Your task to perform on an android device: Play the last video I watched on Youtube Image 0: 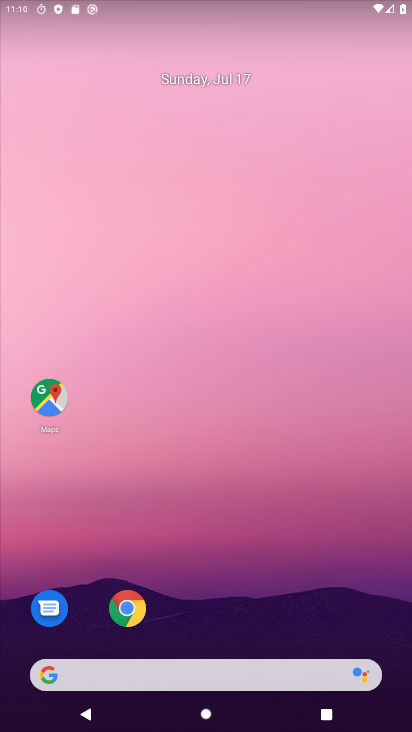
Step 0: drag from (285, 613) to (261, 18)
Your task to perform on an android device: Play the last video I watched on Youtube Image 1: 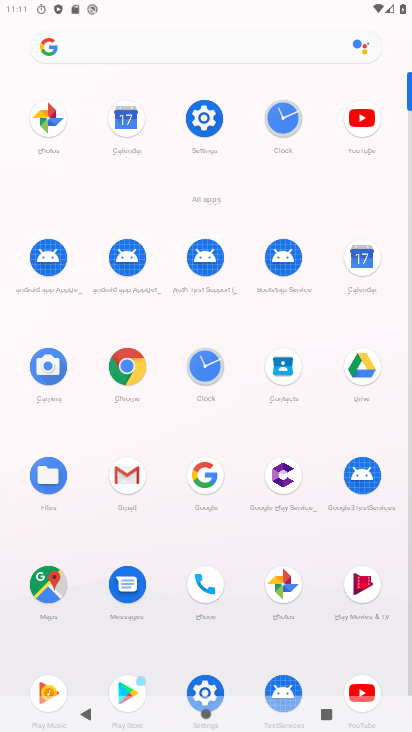
Step 1: click (359, 686)
Your task to perform on an android device: Play the last video I watched on Youtube Image 2: 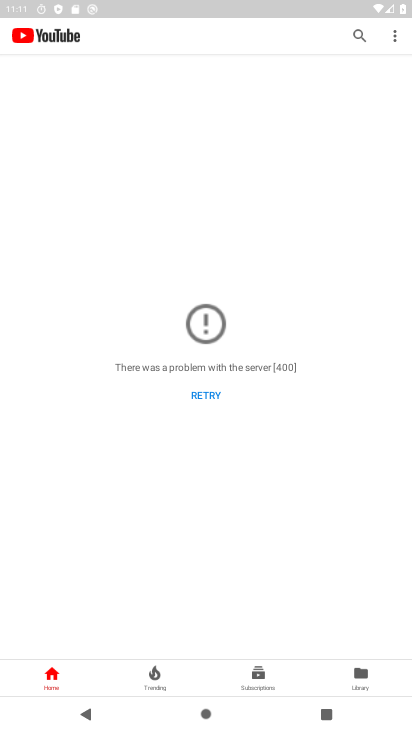
Step 2: click (358, 683)
Your task to perform on an android device: Play the last video I watched on Youtube Image 3: 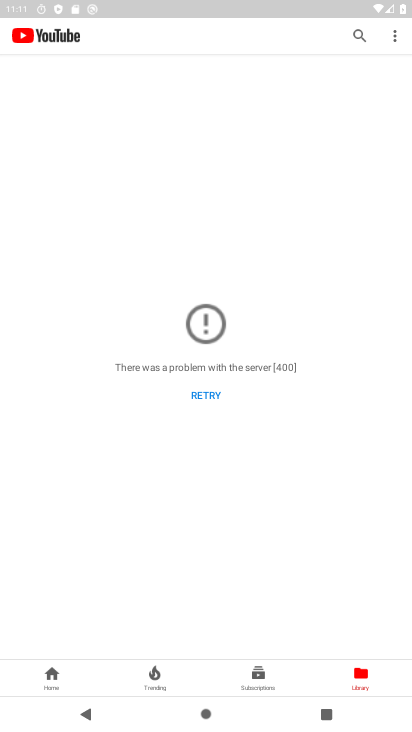
Step 3: click (207, 394)
Your task to perform on an android device: Play the last video I watched on Youtube Image 4: 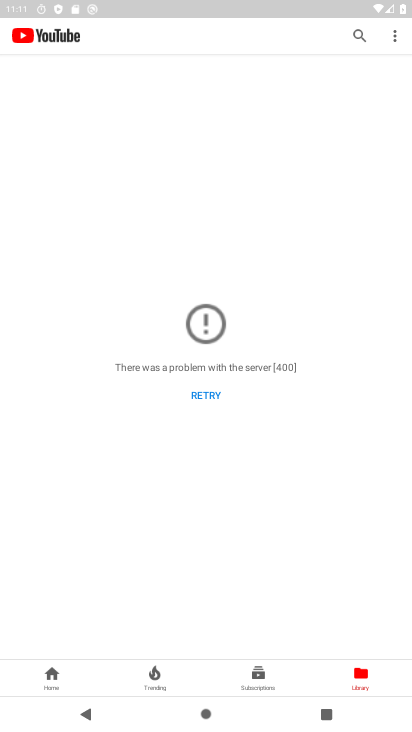
Step 4: task complete